Your task to perform on an android device: View the shopping cart on ebay. Add "macbook pro 13 inch" to the cart on ebay Image 0: 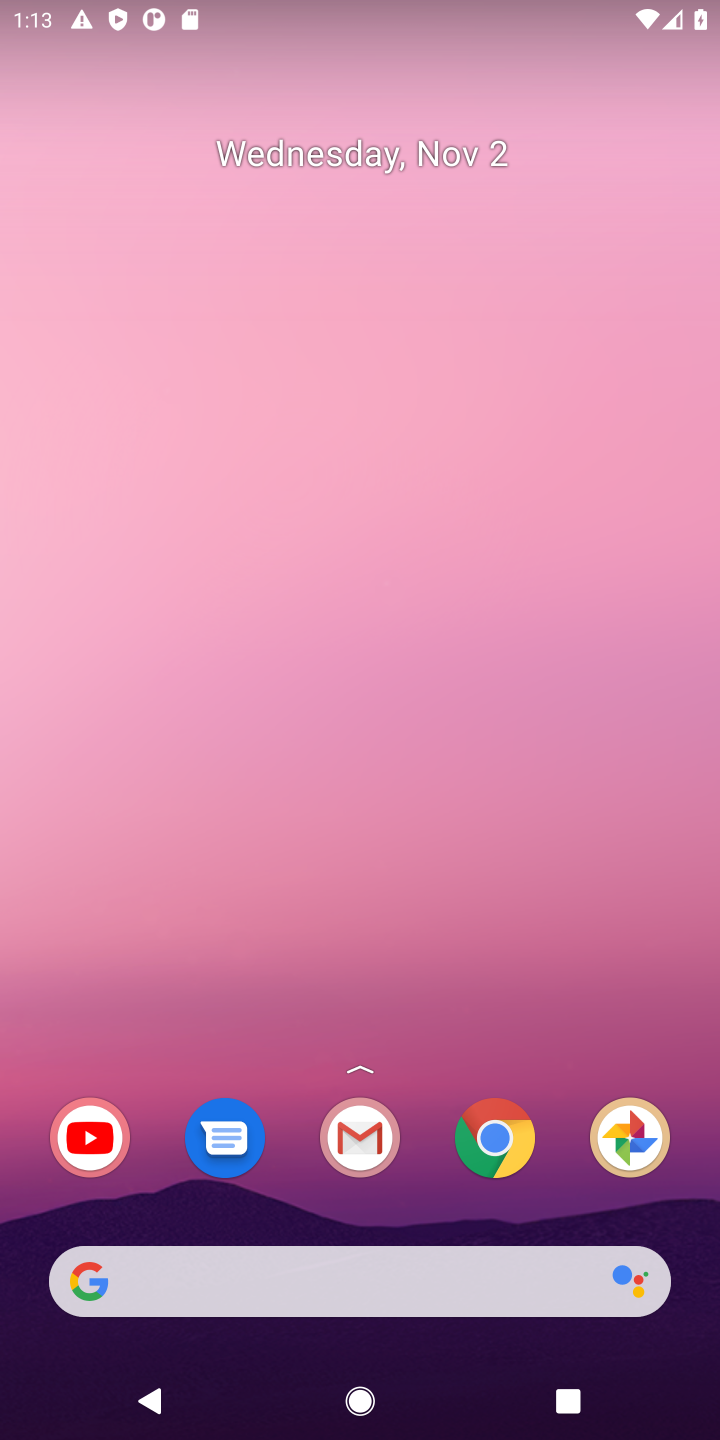
Step 0: press home button
Your task to perform on an android device: View the shopping cart on ebay. Add "macbook pro 13 inch" to the cart on ebay Image 1: 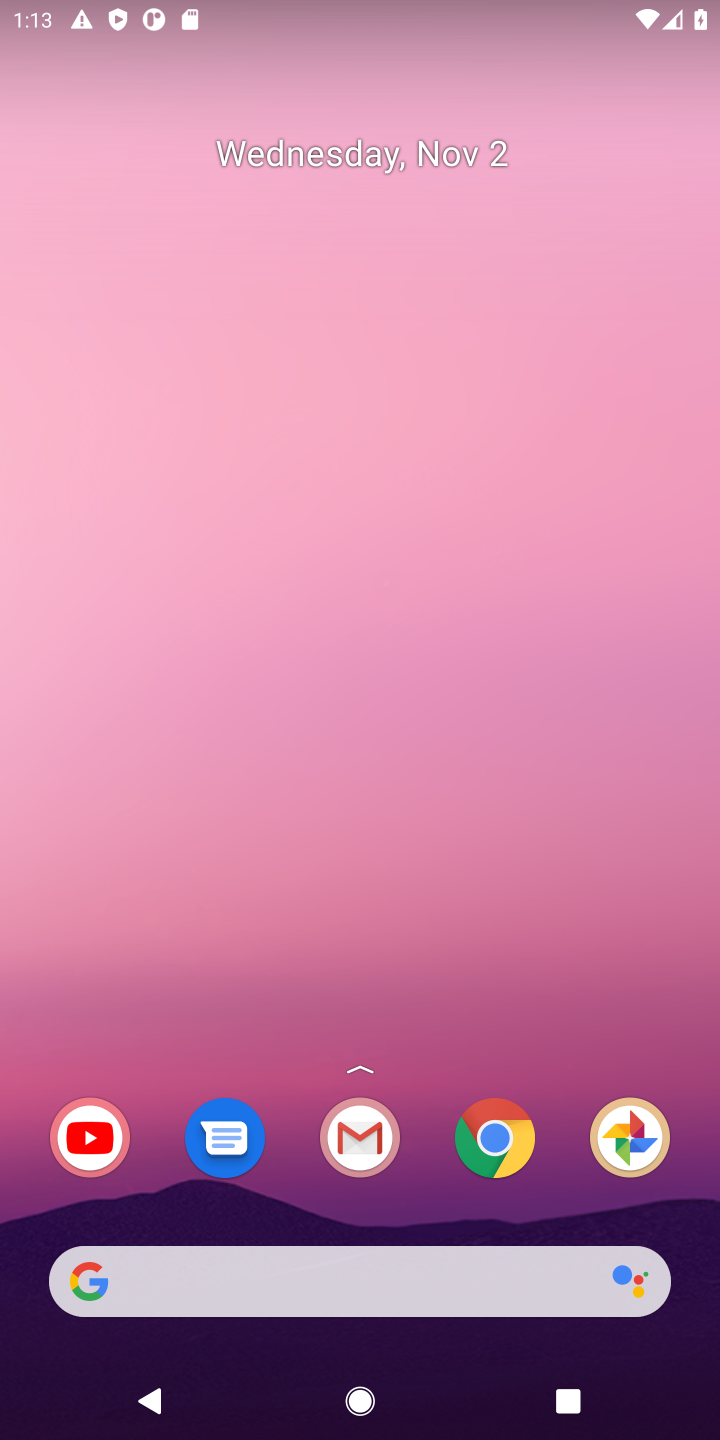
Step 1: click (169, 1280)
Your task to perform on an android device: View the shopping cart on ebay. Add "macbook pro 13 inch" to the cart on ebay Image 2: 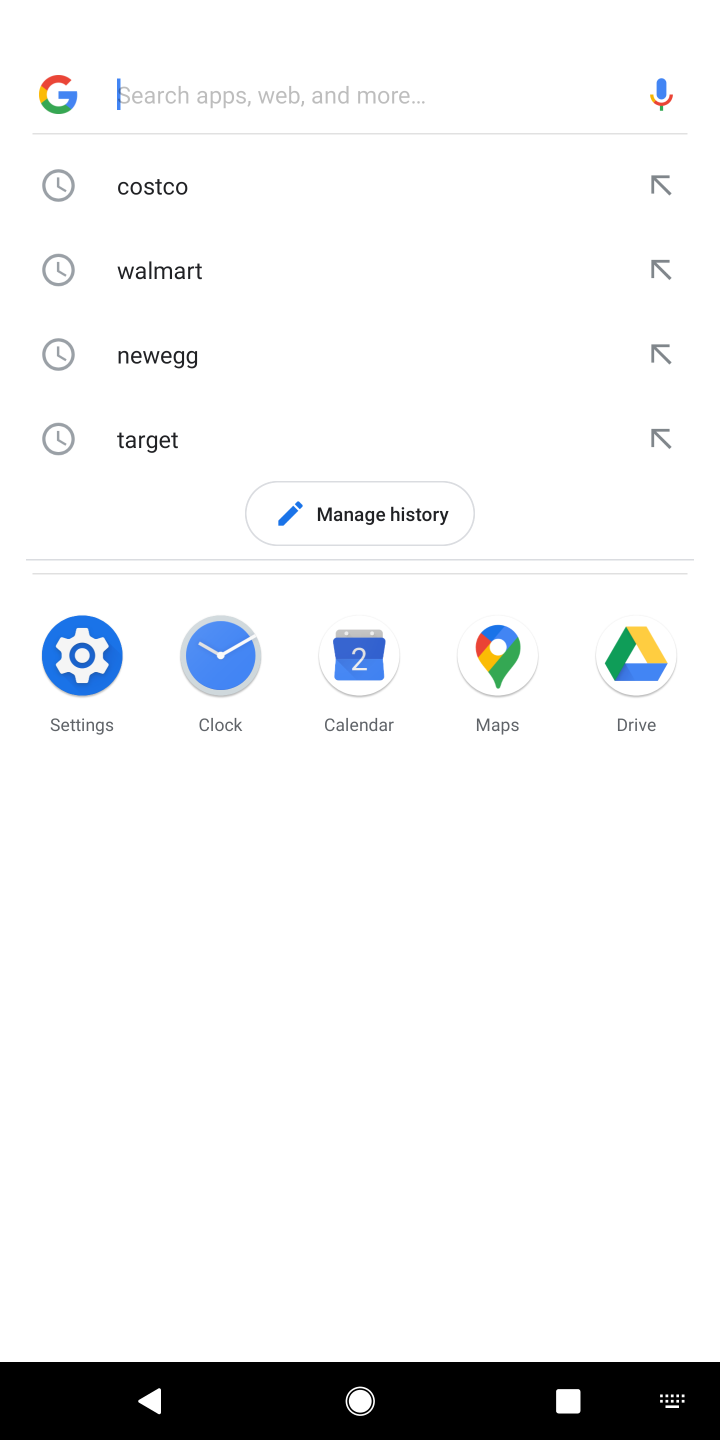
Step 2: type "ebay"
Your task to perform on an android device: View the shopping cart on ebay. Add "macbook pro 13 inch" to the cart on ebay Image 3: 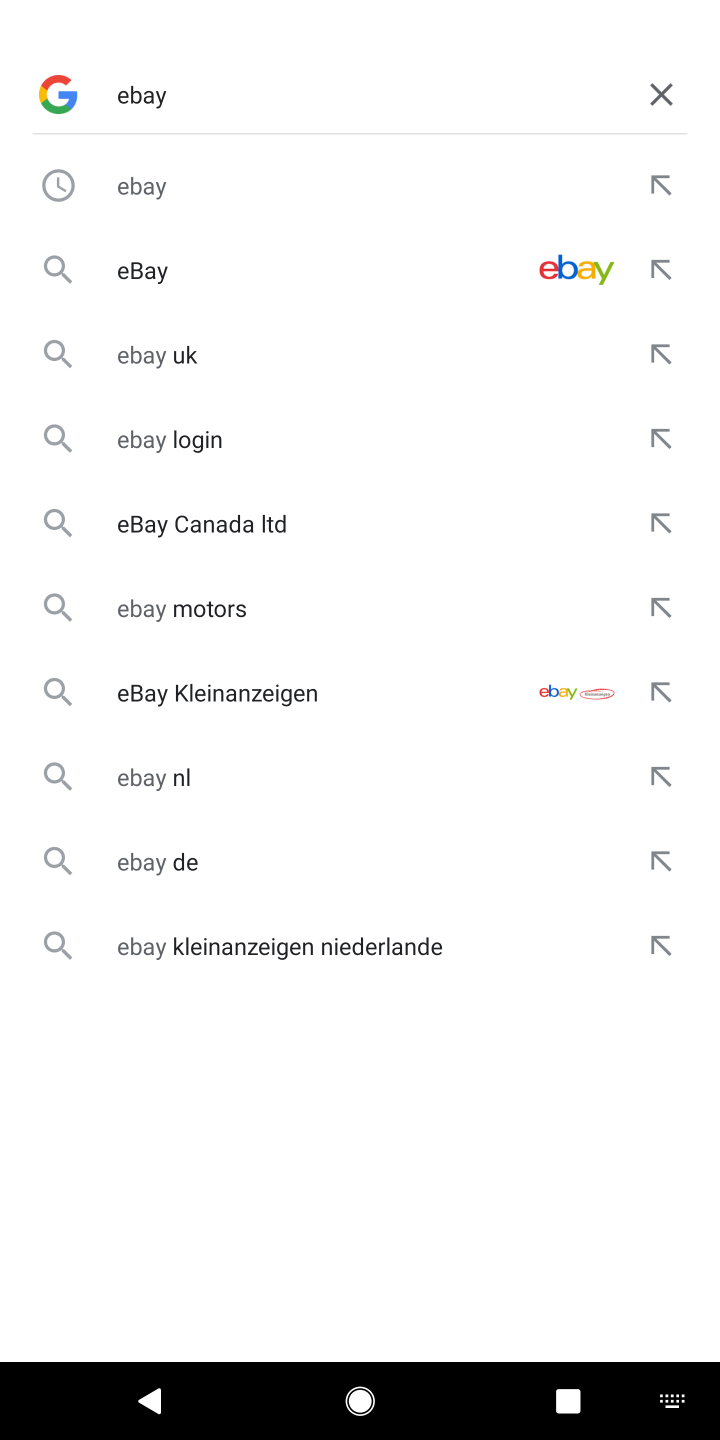
Step 3: press enter
Your task to perform on an android device: View the shopping cart on ebay. Add "macbook pro 13 inch" to the cart on ebay Image 4: 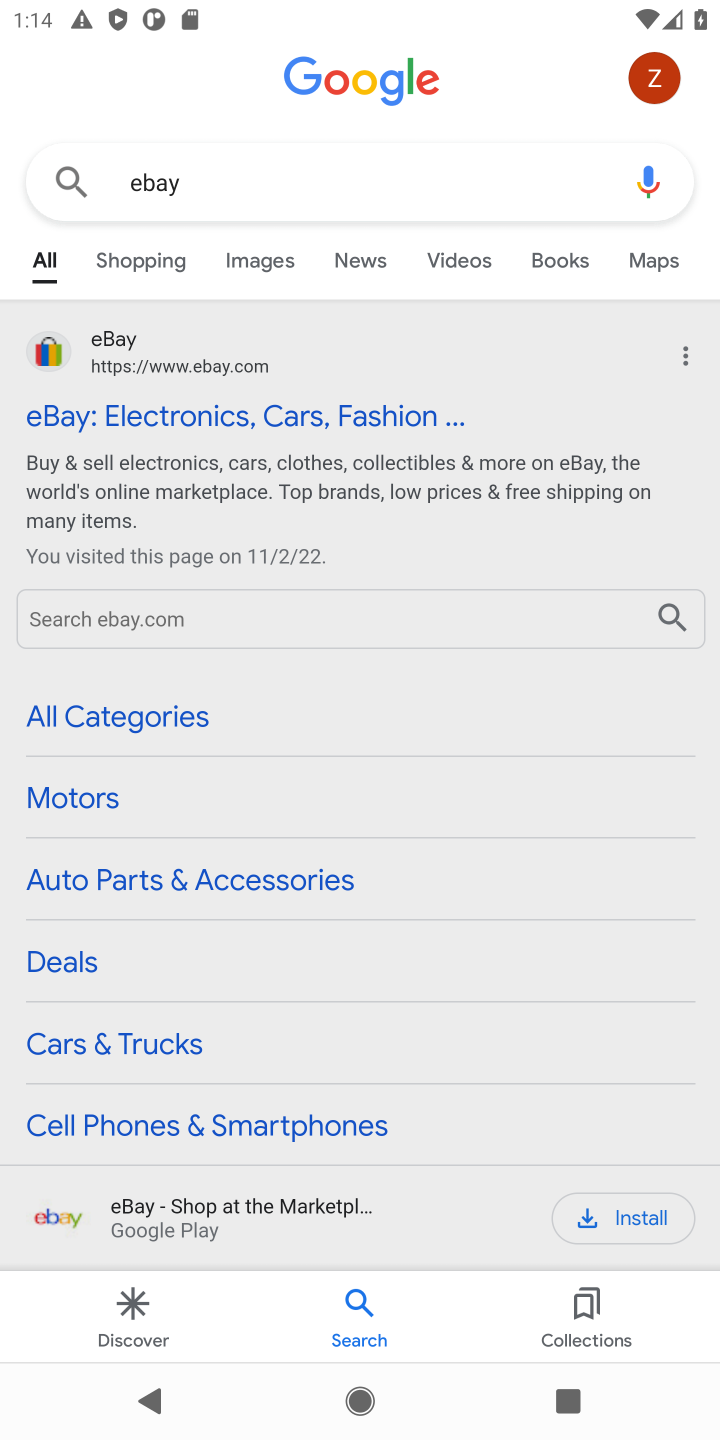
Step 4: click (289, 417)
Your task to perform on an android device: View the shopping cart on ebay. Add "macbook pro 13 inch" to the cart on ebay Image 5: 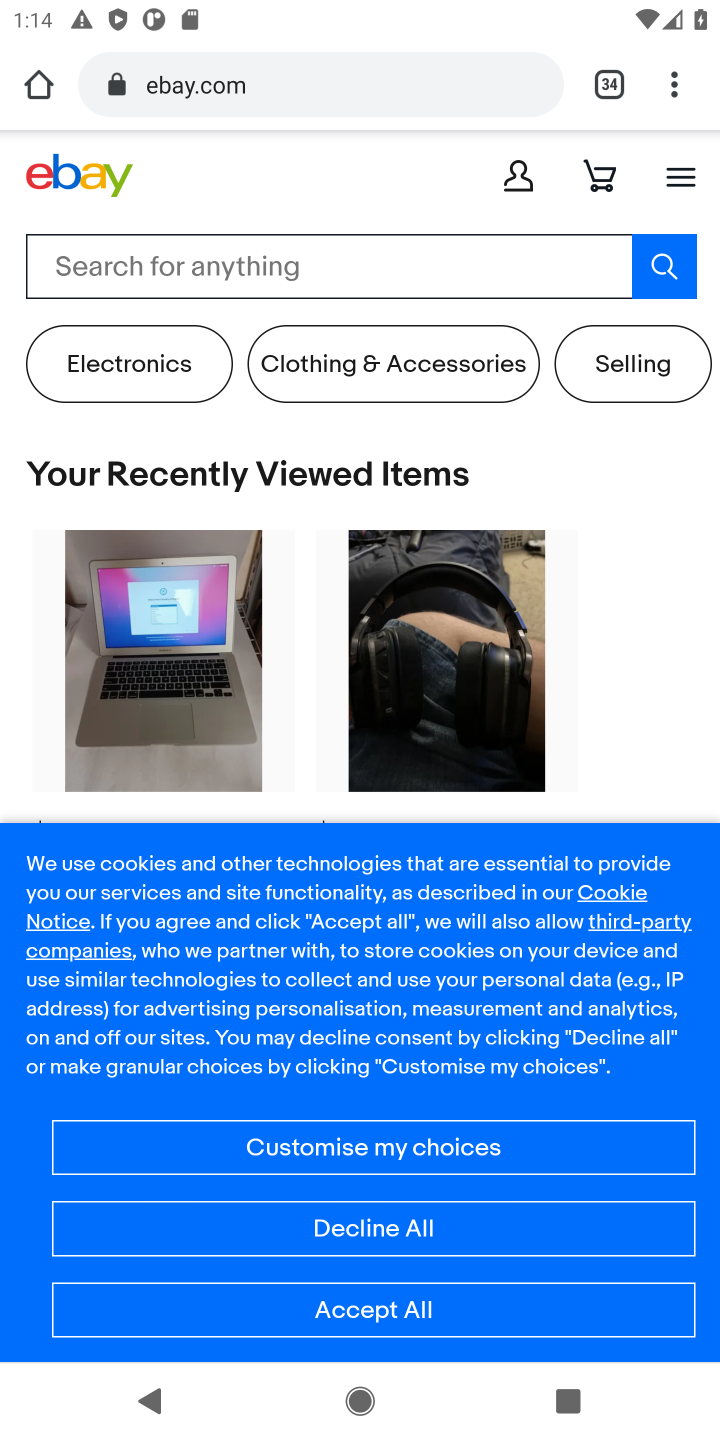
Step 5: click (365, 1317)
Your task to perform on an android device: View the shopping cart on ebay. Add "macbook pro 13 inch" to the cart on ebay Image 6: 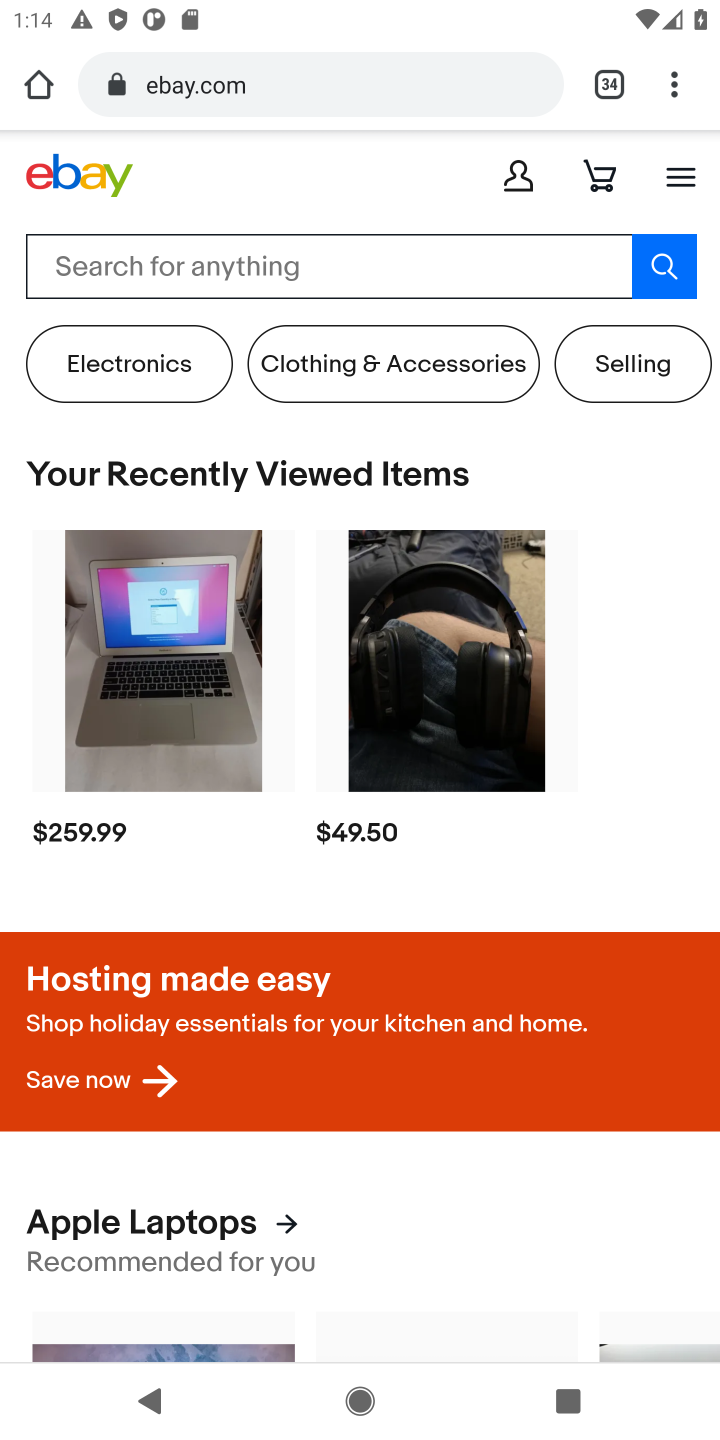
Step 6: click (598, 167)
Your task to perform on an android device: View the shopping cart on ebay. Add "macbook pro 13 inch" to the cart on ebay Image 7: 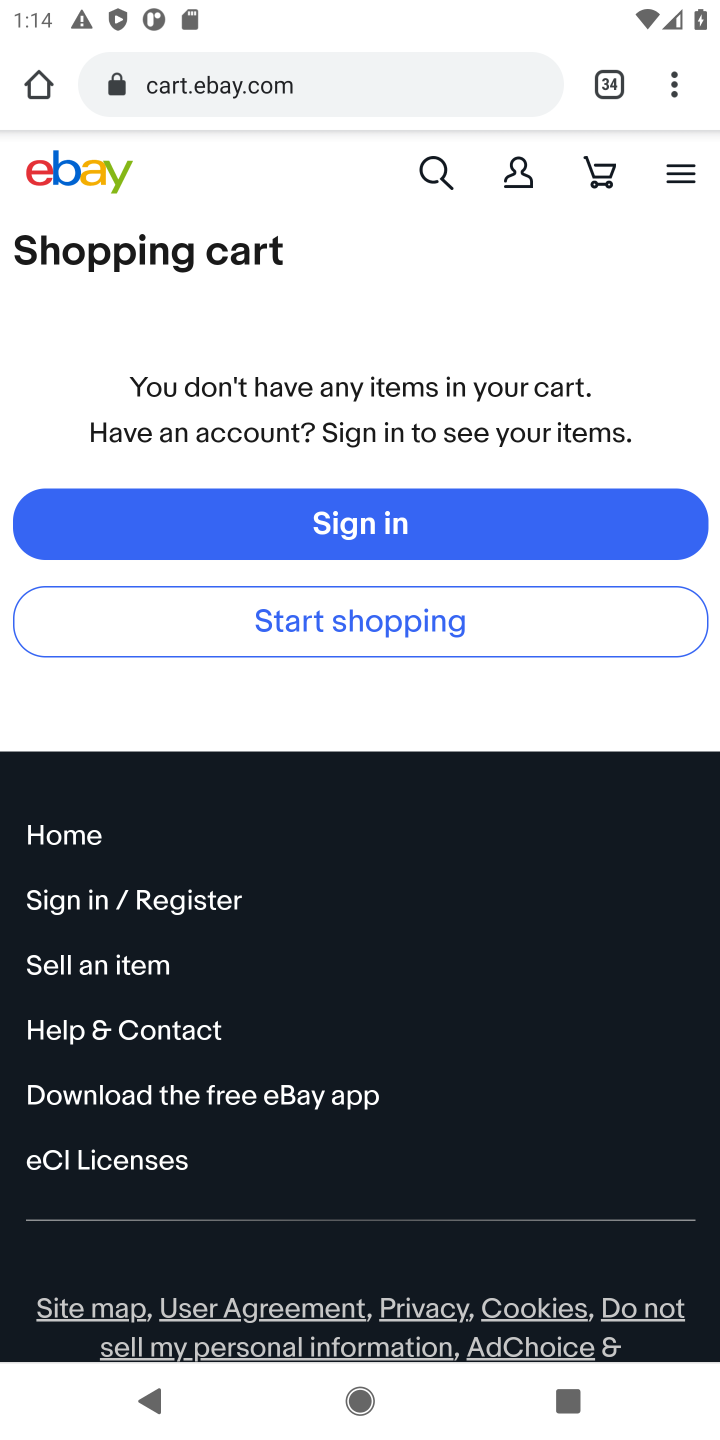
Step 7: click (427, 159)
Your task to perform on an android device: View the shopping cart on ebay. Add "macbook pro 13 inch" to the cart on ebay Image 8: 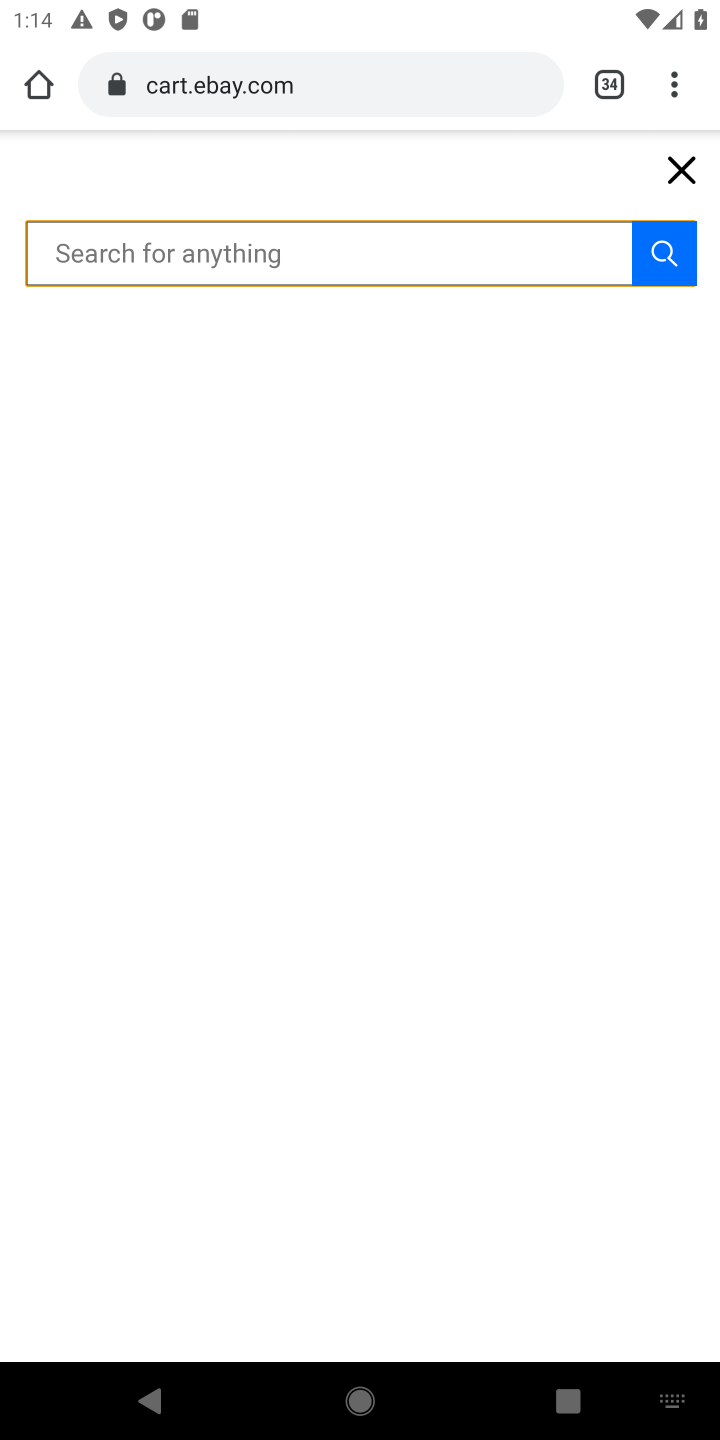
Step 8: type "macbook pro 13 inch"
Your task to perform on an android device: View the shopping cart on ebay. Add "macbook pro 13 inch" to the cart on ebay Image 9: 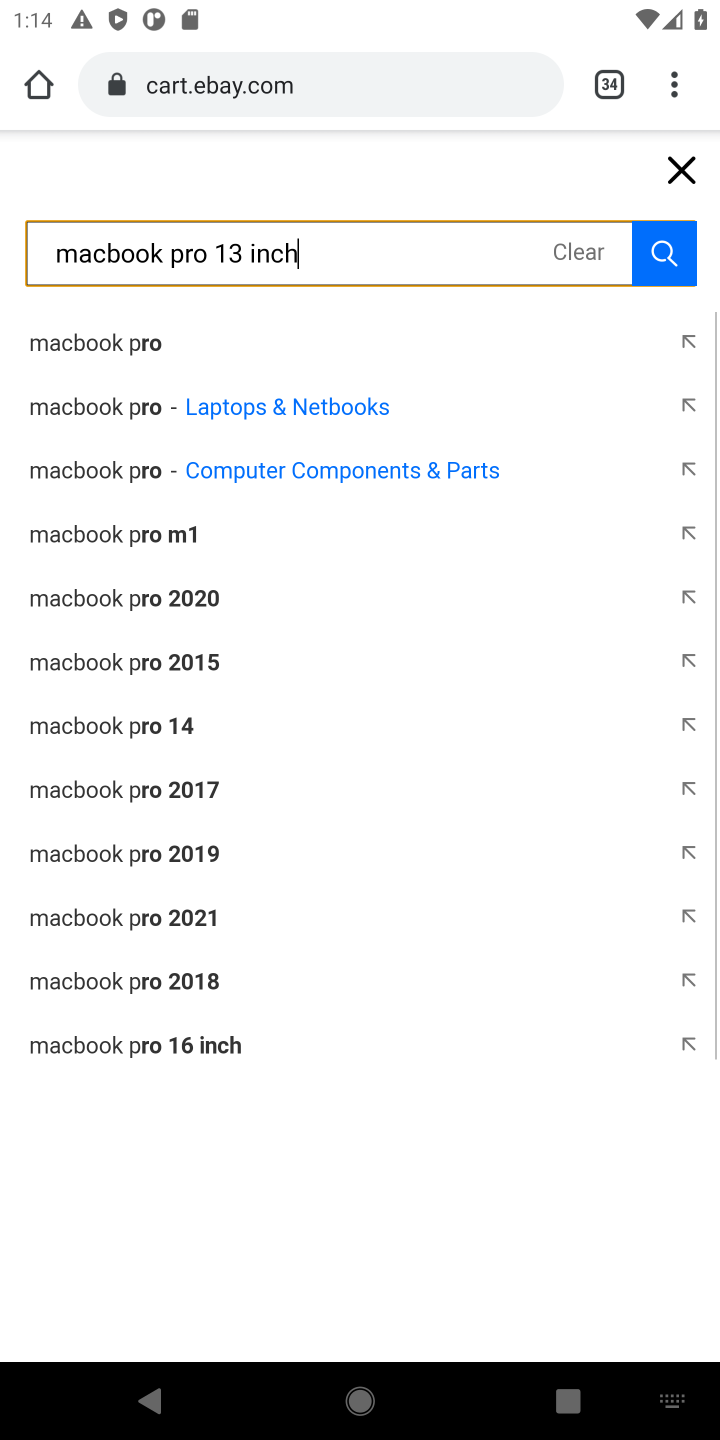
Step 9: press enter
Your task to perform on an android device: View the shopping cart on ebay. Add "macbook pro 13 inch" to the cart on ebay Image 10: 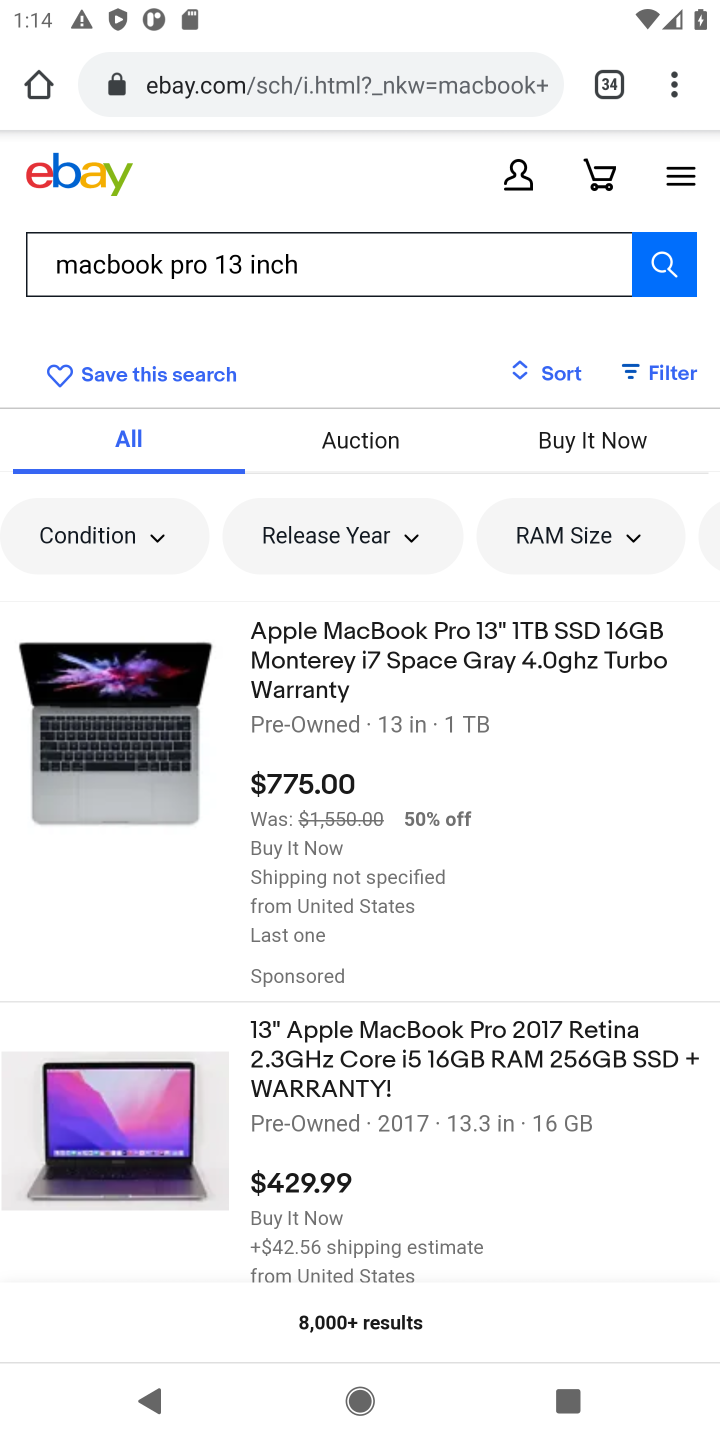
Step 10: click (505, 650)
Your task to perform on an android device: View the shopping cart on ebay. Add "macbook pro 13 inch" to the cart on ebay Image 11: 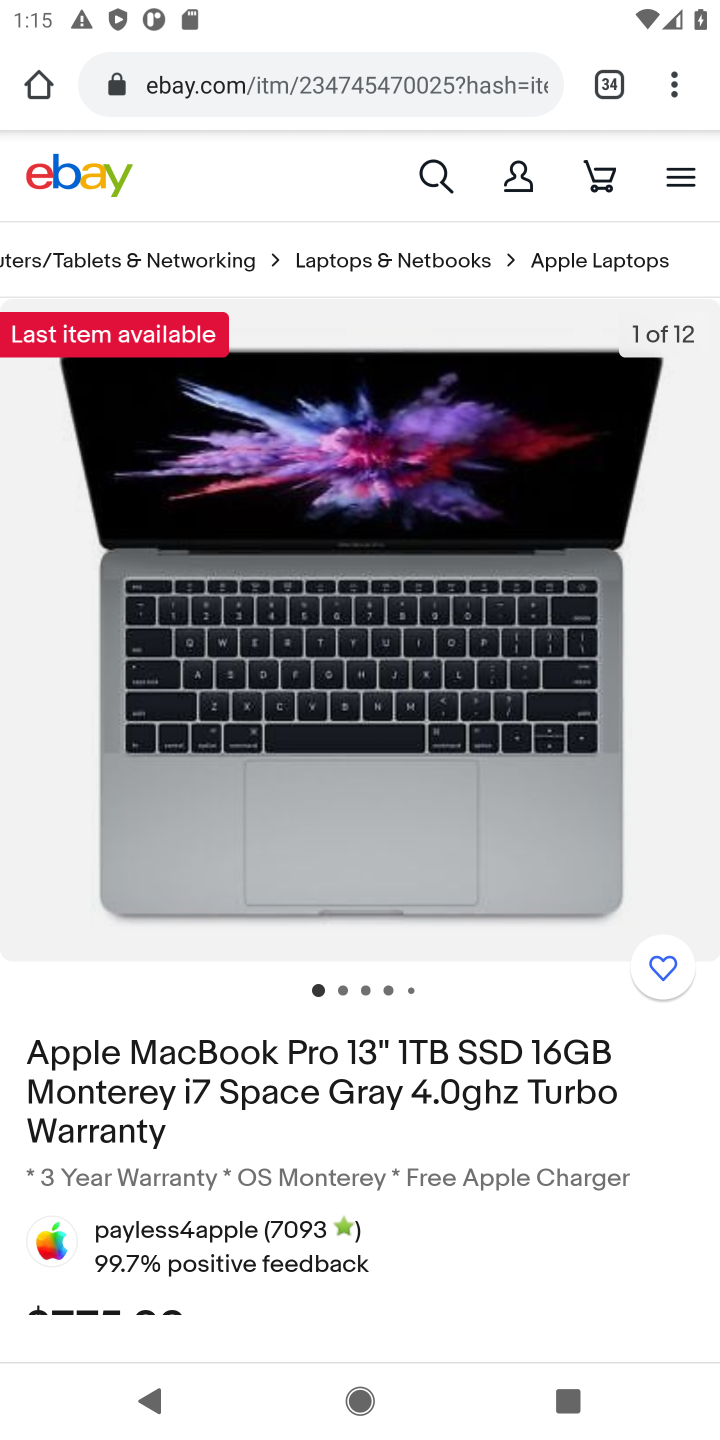
Step 11: drag from (479, 1202) to (472, 879)
Your task to perform on an android device: View the shopping cart on ebay. Add "macbook pro 13 inch" to the cart on ebay Image 12: 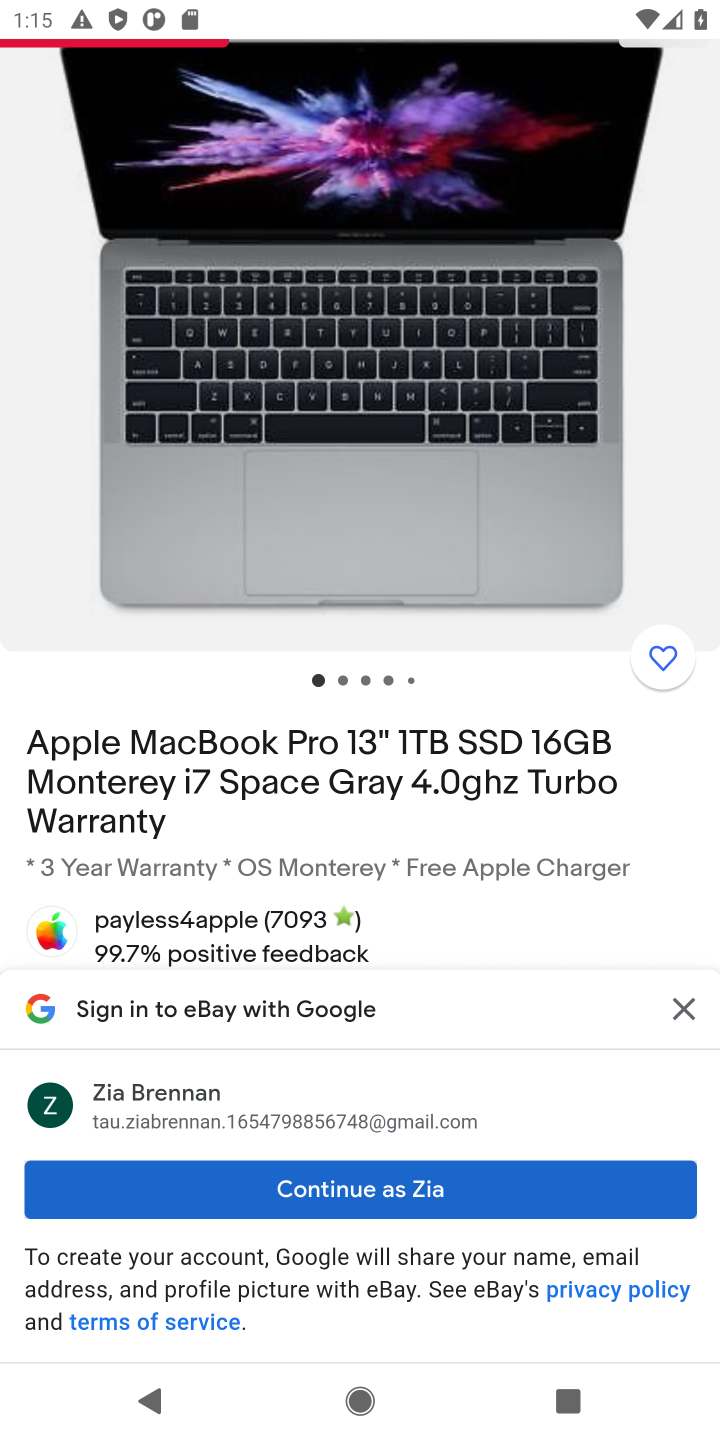
Step 12: click (453, 1192)
Your task to perform on an android device: View the shopping cart on ebay. Add "macbook pro 13 inch" to the cart on ebay Image 13: 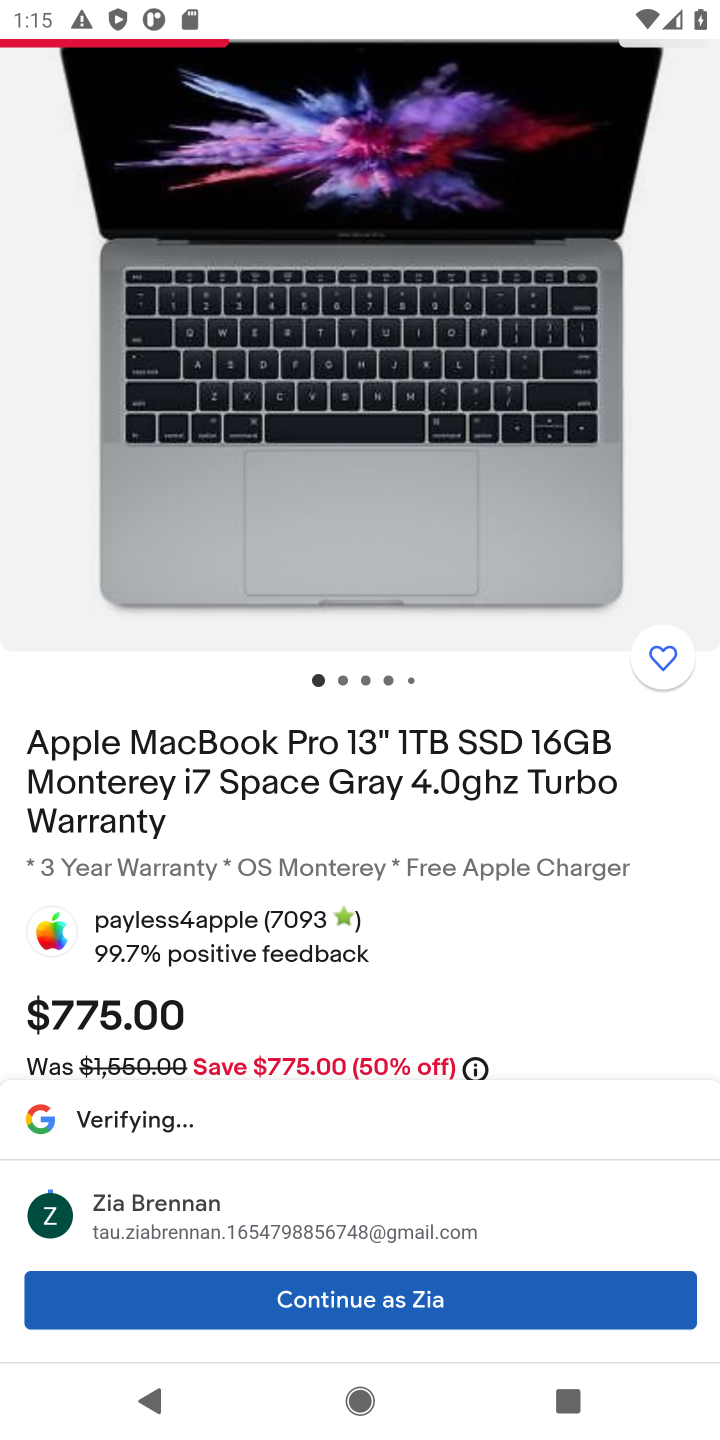
Step 13: drag from (415, 1062) to (416, 666)
Your task to perform on an android device: View the shopping cart on ebay. Add "macbook pro 13 inch" to the cart on ebay Image 14: 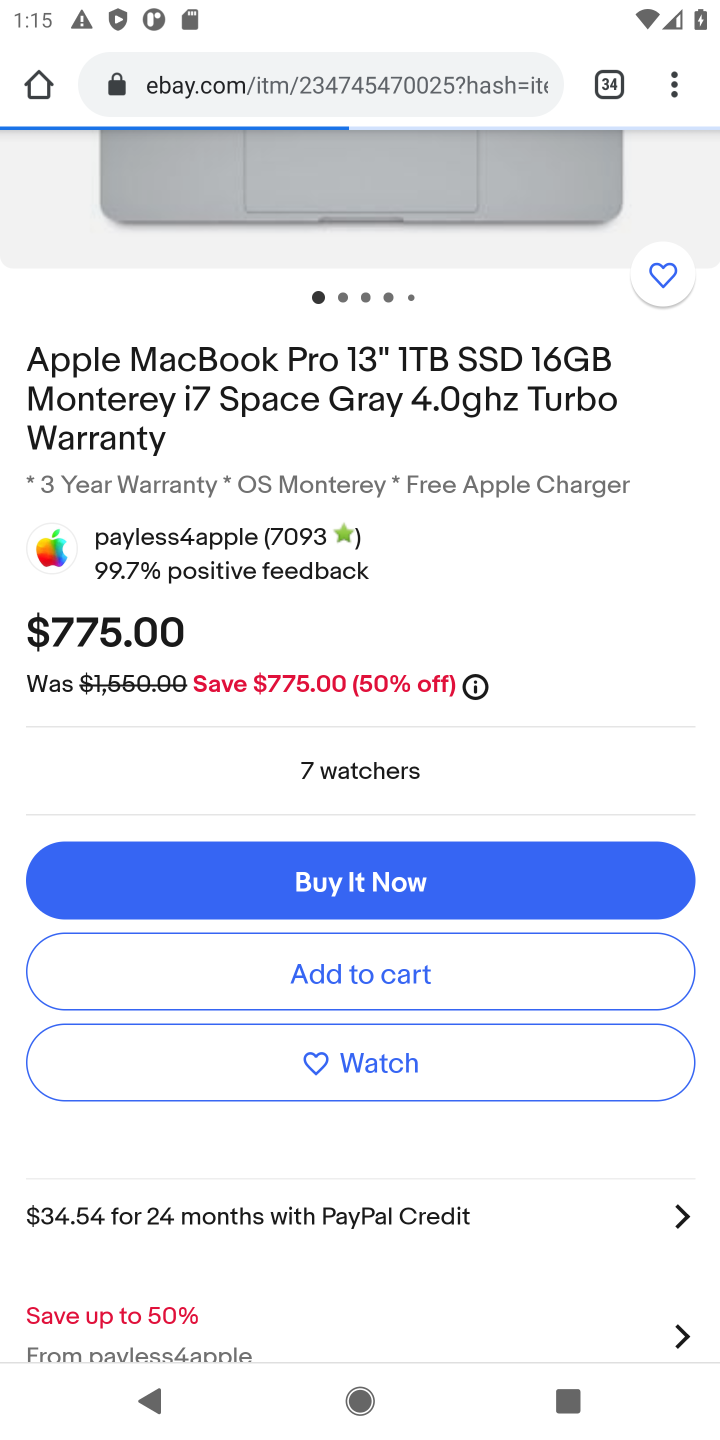
Step 14: click (322, 976)
Your task to perform on an android device: View the shopping cart on ebay. Add "macbook pro 13 inch" to the cart on ebay Image 15: 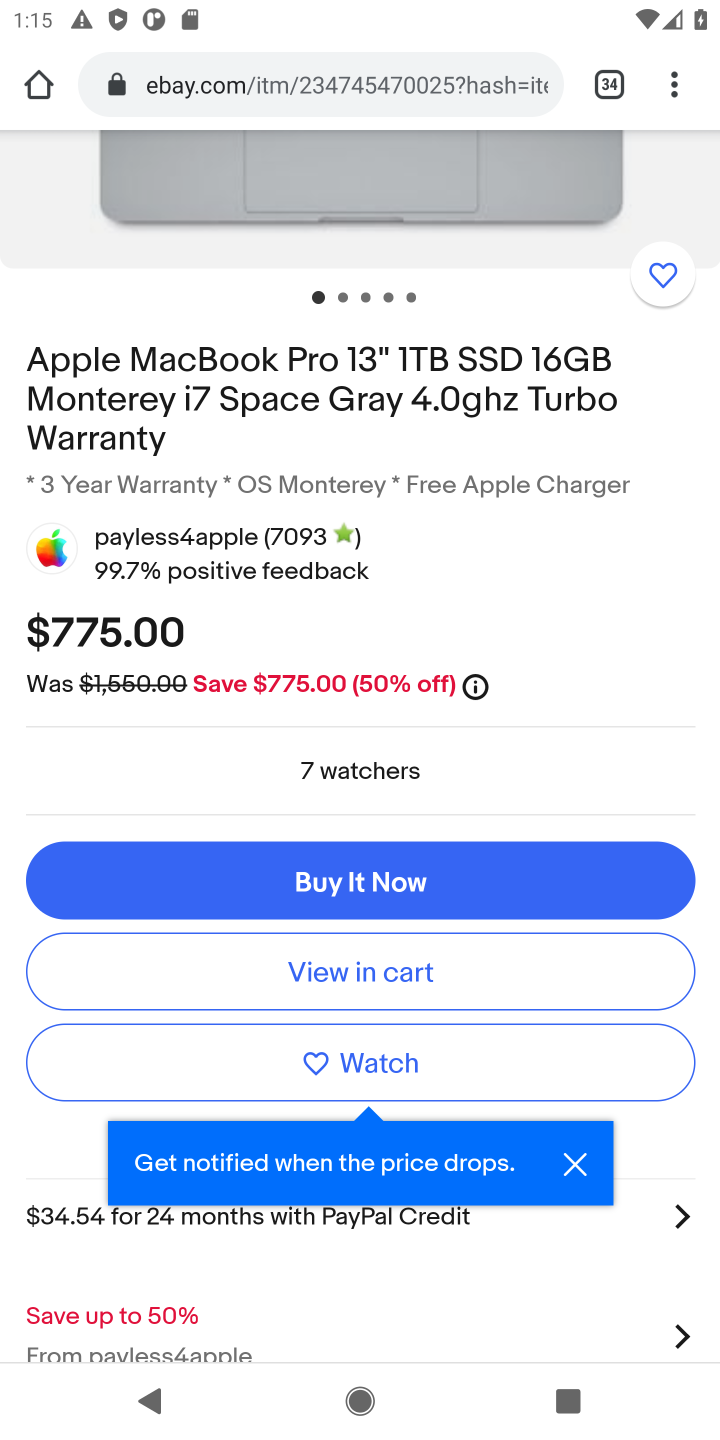
Step 15: task complete